Your task to perform on an android device: turn on airplane mode Image 0: 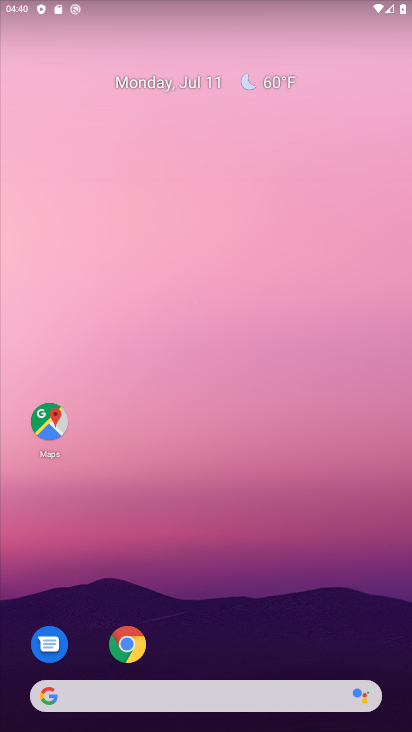
Step 0: drag from (293, 648) to (293, 250)
Your task to perform on an android device: turn on airplane mode Image 1: 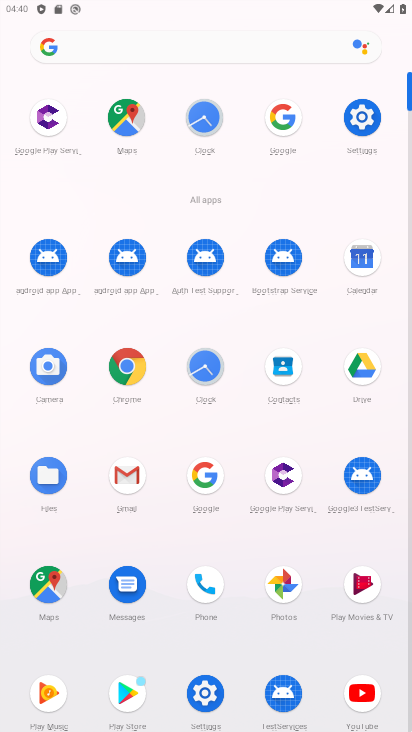
Step 1: click (358, 124)
Your task to perform on an android device: turn on airplane mode Image 2: 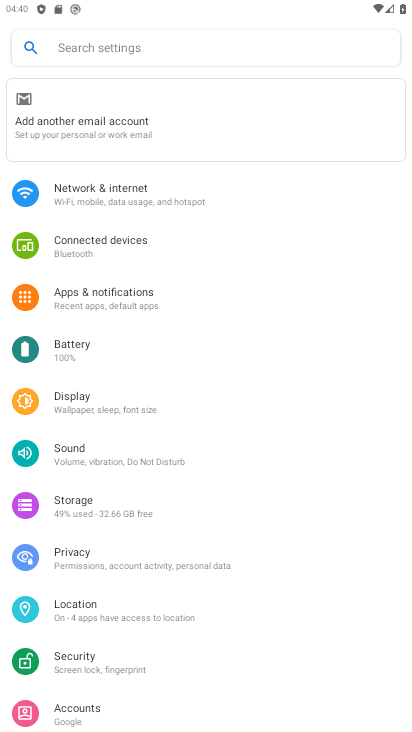
Step 2: click (117, 191)
Your task to perform on an android device: turn on airplane mode Image 3: 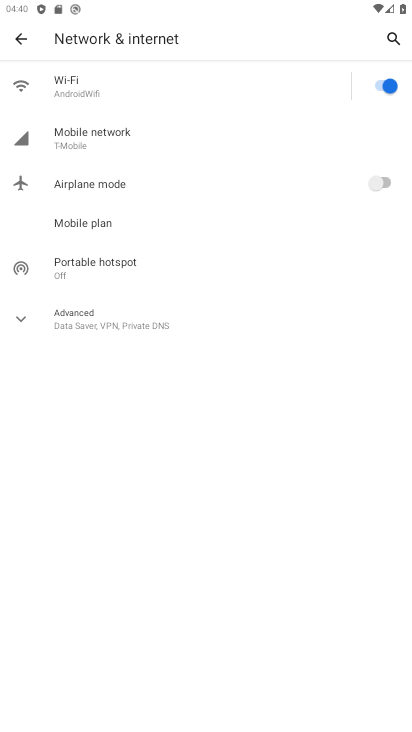
Step 3: click (385, 181)
Your task to perform on an android device: turn on airplane mode Image 4: 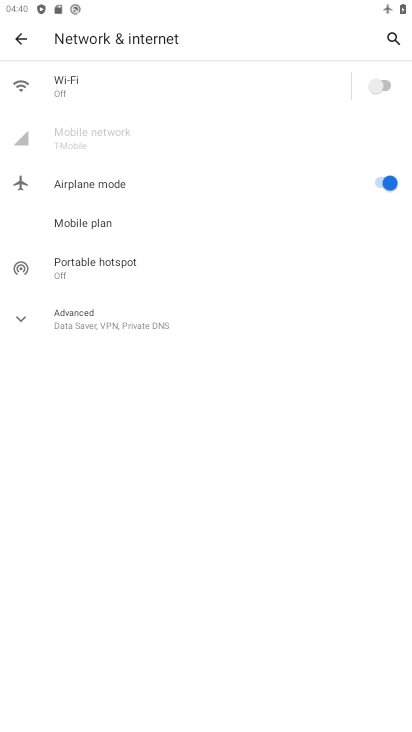
Step 4: task complete